Your task to perform on an android device: turn pop-ups on in chrome Image 0: 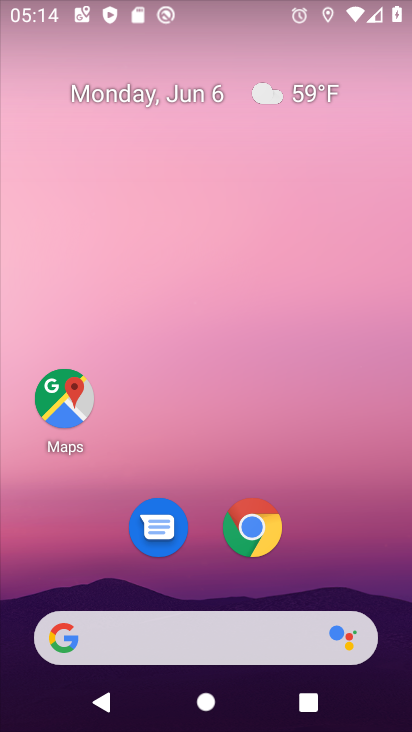
Step 0: click (248, 543)
Your task to perform on an android device: turn pop-ups on in chrome Image 1: 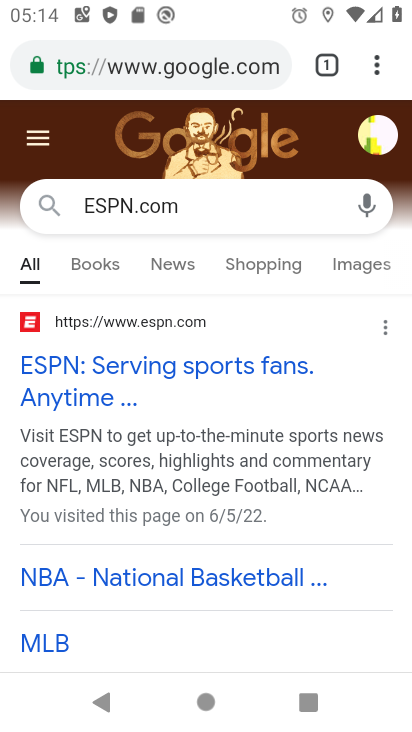
Step 1: click (372, 70)
Your task to perform on an android device: turn pop-ups on in chrome Image 2: 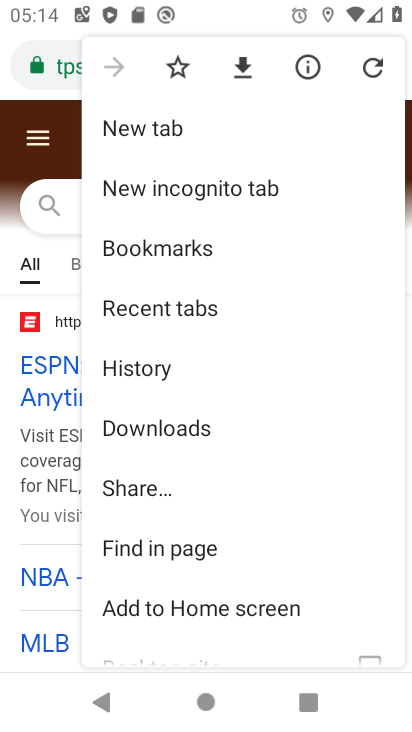
Step 2: drag from (297, 534) to (284, 216)
Your task to perform on an android device: turn pop-ups on in chrome Image 3: 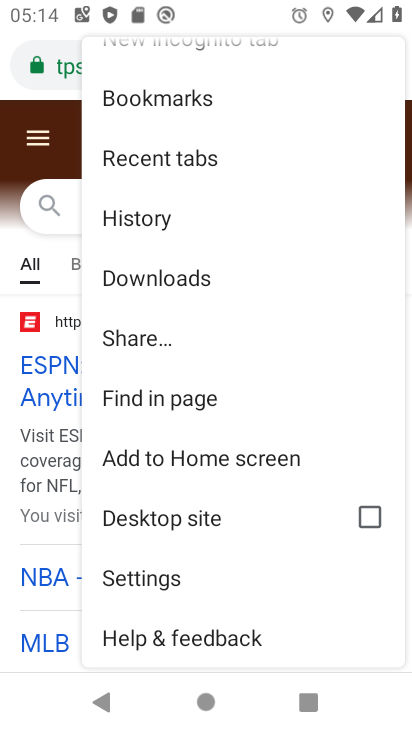
Step 3: click (143, 574)
Your task to perform on an android device: turn pop-ups on in chrome Image 4: 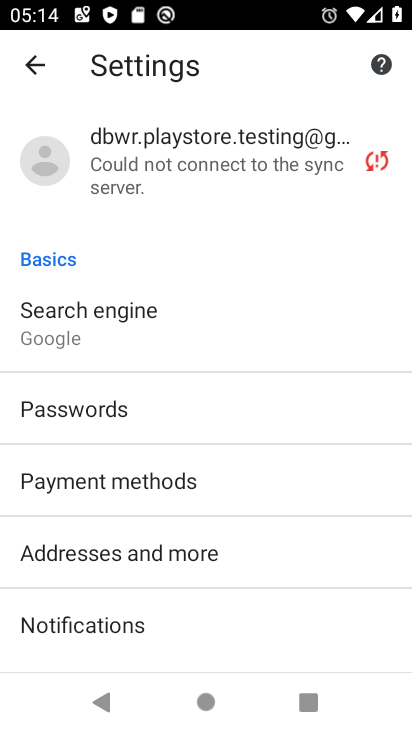
Step 4: drag from (259, 600) to (256, 261)
Your task to perform on an android device: turn pop-ups on in chrome Image 5: 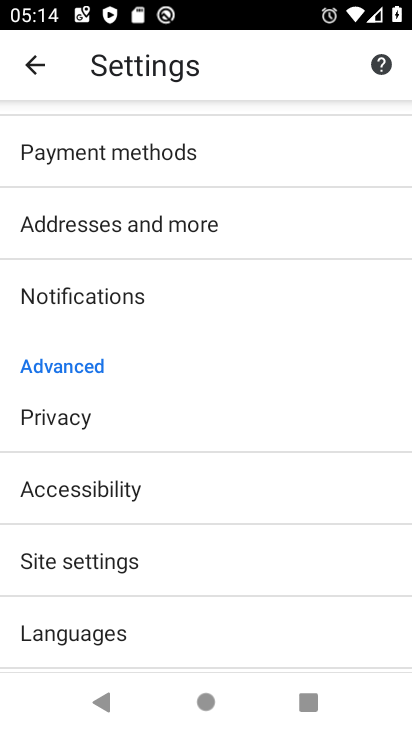
Step 5: drag from (220, 593) to (206, 298)
Your task to perform on an android device: turn pop-ups on in chrome Image 6: 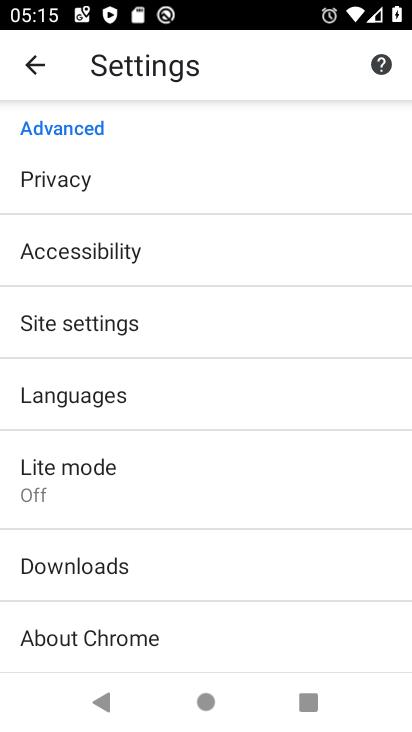
Step 6: click (90, 311)
Your task to perform on an android device: turn pop-ups on in chrome Image 7: 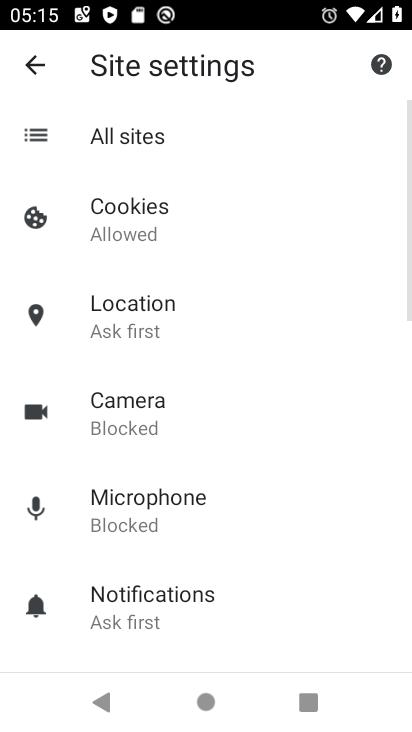
Step 7: drag from (249, 584) to (288, 194)
Your task to perform on an android device: turn pop-ups on in chrome Image 8: 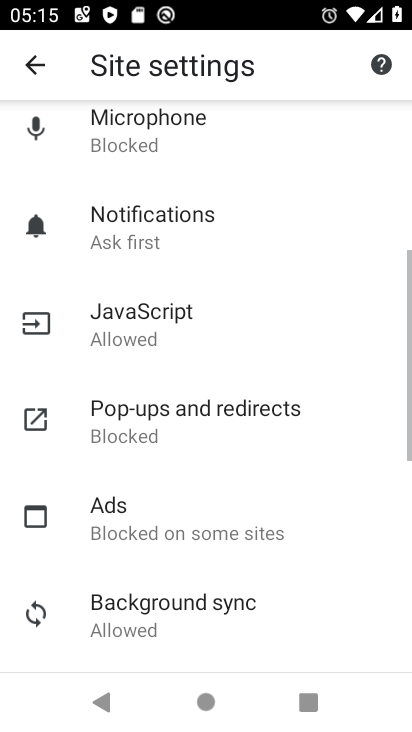
Step 8: click (150, 401)
Your task to perform on an android device: turn pop-ups on in chrome Image 9: 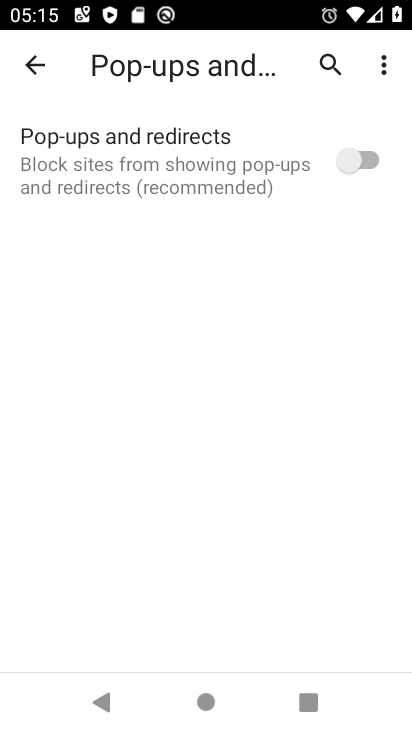
Step 9: click (365, 163)
Your task to perform on an android device: turn pop-ups on in chrome Image 10: 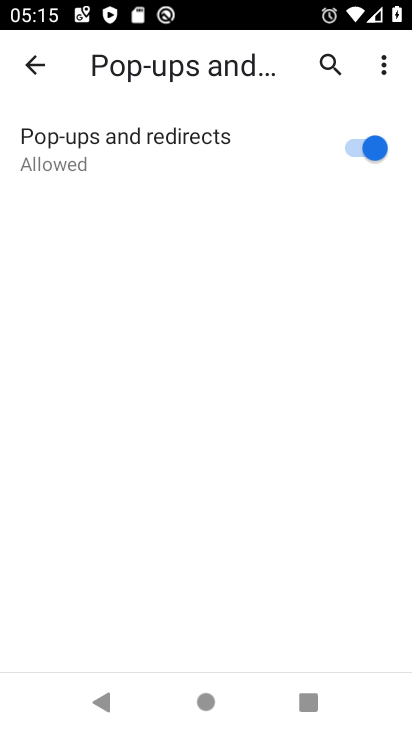
Step 10: task complete